Your task to perform on an android device: toggle wifi Image 0: 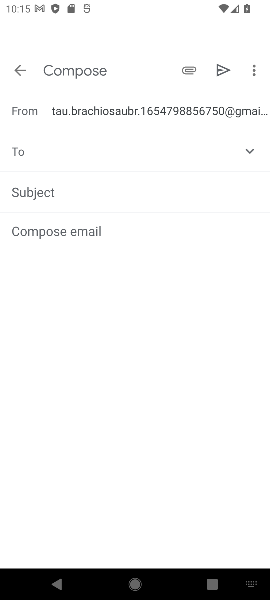
Step 0: press home button
Your task to perform on an android device: toggle wifi Image 1: 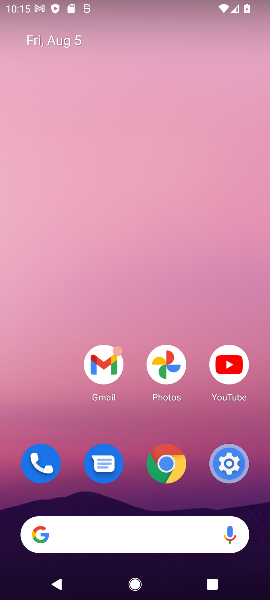
Step 1: drag from (131, 526) to (141, 26)
Your task to perform on an android device: toggle wifi Image 2: 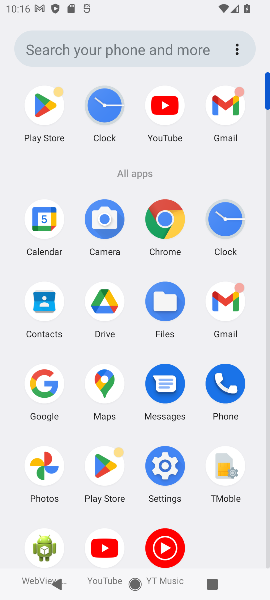
Step 2: click (164, 459)
Your task to perform on an android device: toggle wifi Image 3: 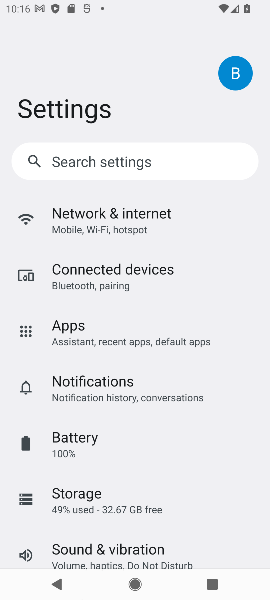
Step 3: click (108, 208)
Your task to perform on an android device: toggle wifi Image 4: 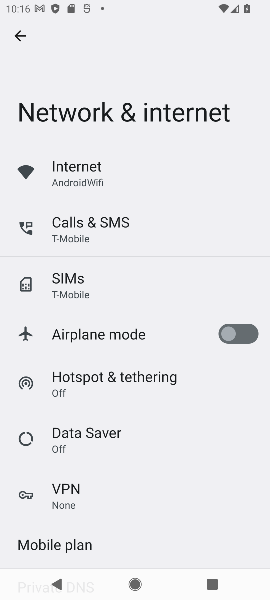
Step 4: click (84, 170)
Your task to perform on an android device: toggle wifi Image 5: 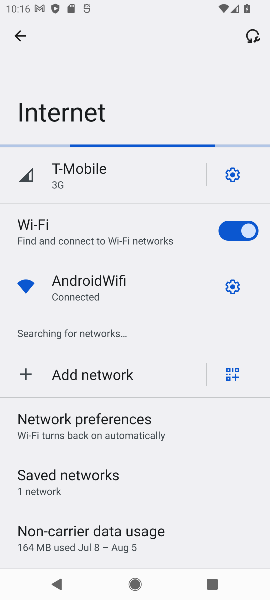
Step 5: click (231, 229)
Your task to perform on an android device: toggle wifi Image 6: 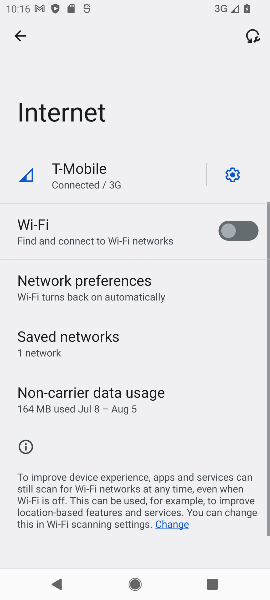
Step 6: task complete